Your task to perform on an android device: turn off notifications settings in the gmail app Image 0: 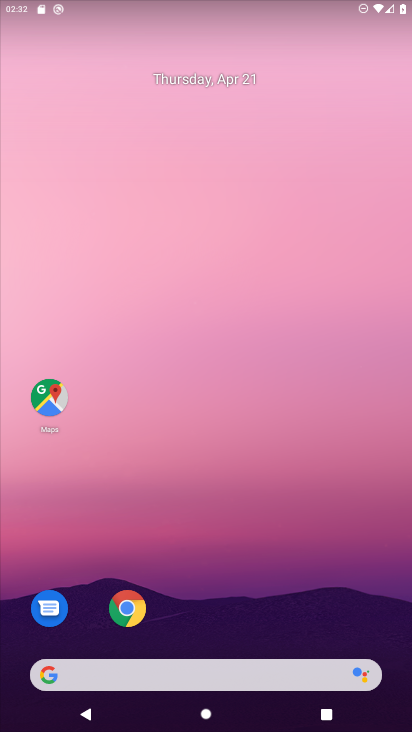
Step 0: drag from (227, 208) to (226, 56)
Your task to perform on an android device: turn off notifications settings in the gmail app Image 1: 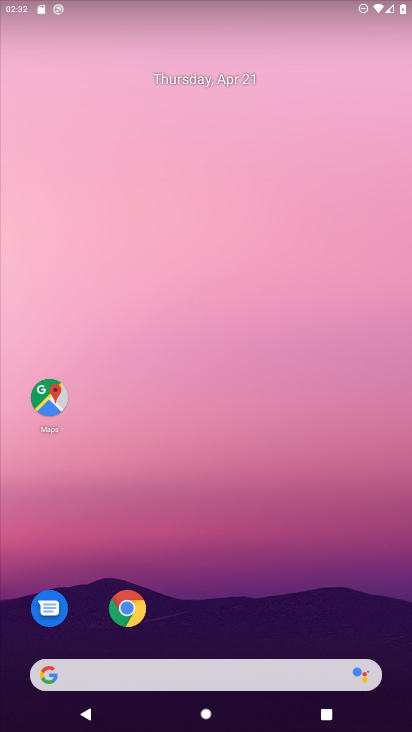
Step 1: drag from (244, 691) to (271, 221)
Your task to perform on an android device: turn off notifications settings in the gmail app Image 2: 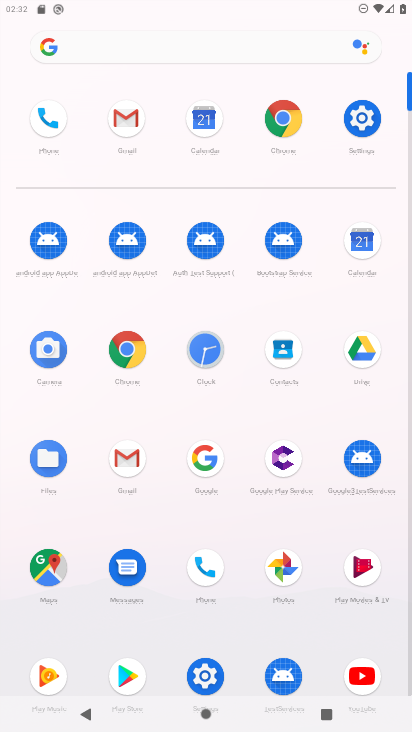
Step 2: click (115, 457)
Your task to perform on an android device: turn off notifications settings in the gmail app Image 3: 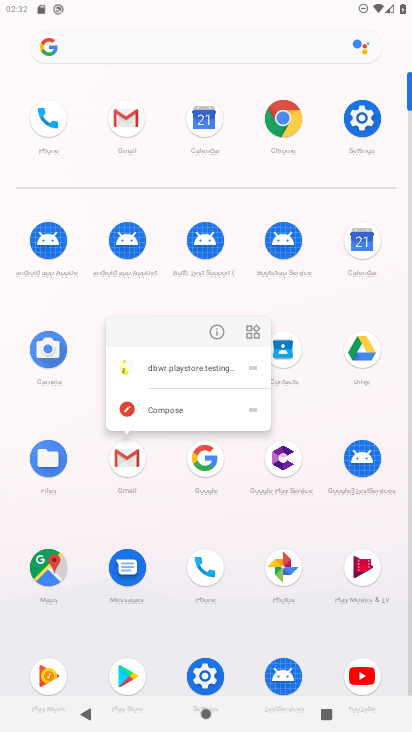
Step 3: click (115, 457)
Your task to perform on an android device: turn off notifications settings in the gmail app Image 4: 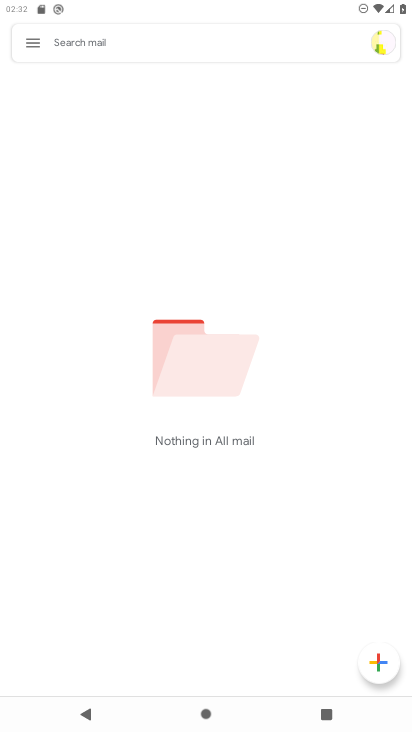
Step 4: click (32, 32)
Your task to perform on an android device: turn off notifications settings in the gmail app Image 5: 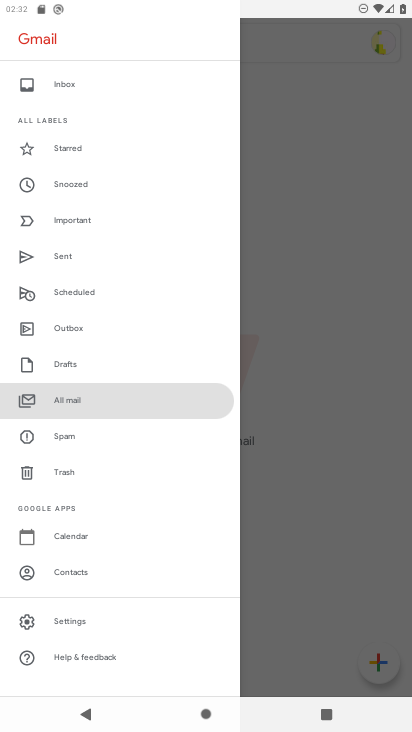
Step 5: click (65, 617)
Your task to perform on an android device: turn off notifications settings in the gmail app Image 6: 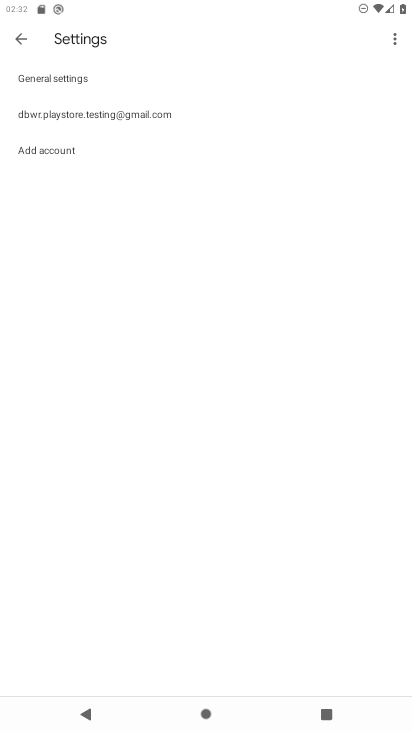
Step 6: click (113, 113)
Your task to perform on an android device: turn off notifications settings in the gmail app Image 7: 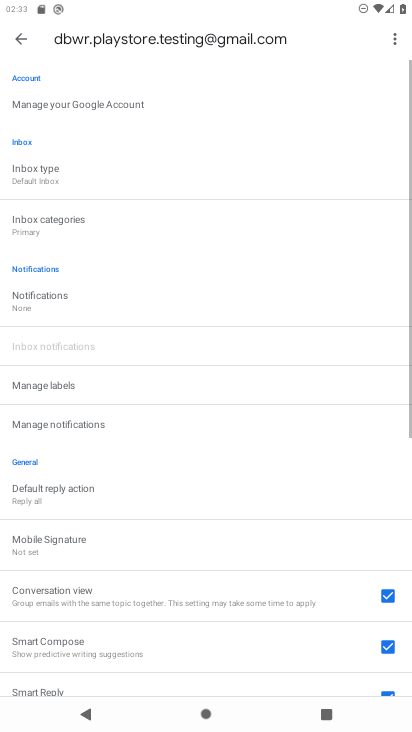
Step 7: click (60, 301)
Your task to perform on an android device: turn off notifications settings in the gmail app Image 8: 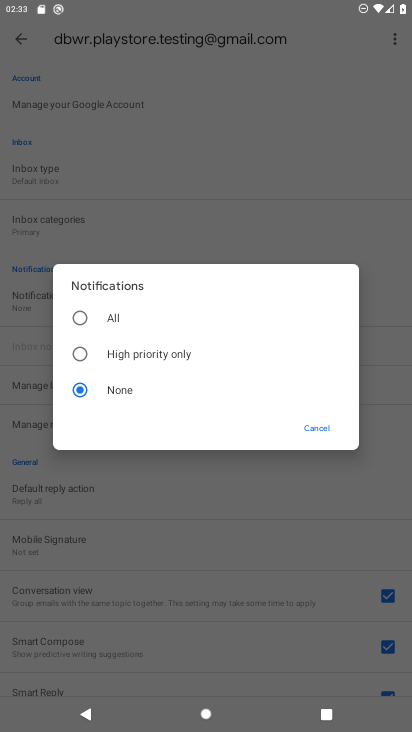
Step 8: task complete